Your task to perform on an android device: delete the emails in spam in the gmail app Image 0: 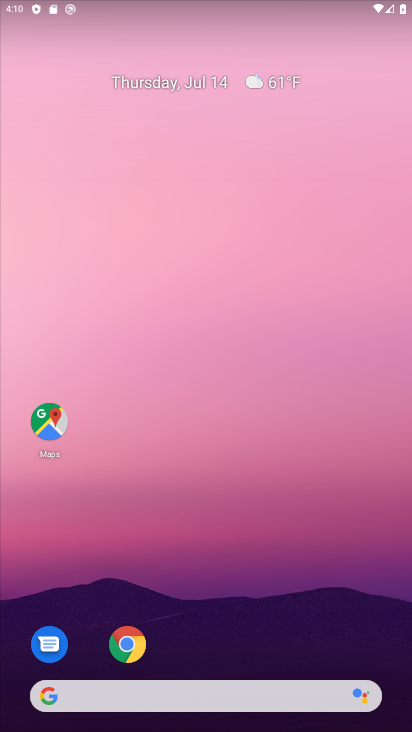
Step 0: press home button
Your task to perform on an android device: delete the emails in spam in the gmail app Image 1: 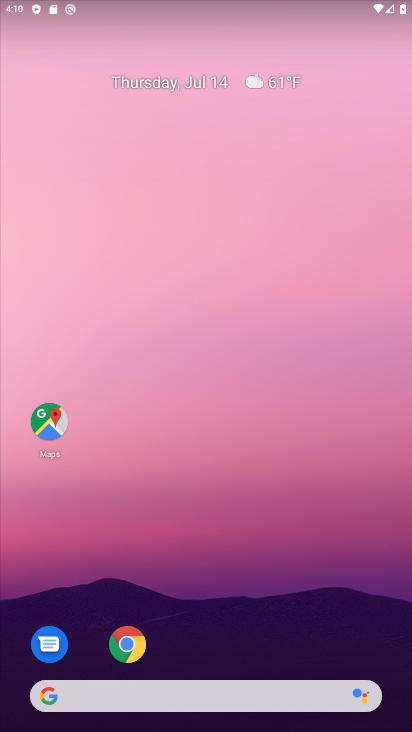
Step 1: press home button
Your task to perform on an android device: delete the emails in spam in the gmail app Image 2: 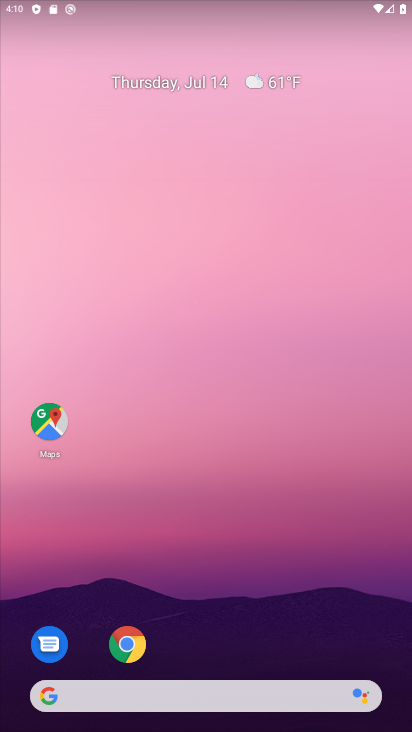
Step 2: drag from (334, 597) to (334, 104)
Your task to perform on an android device: delete the emails in spam in the gmail app Image 3: 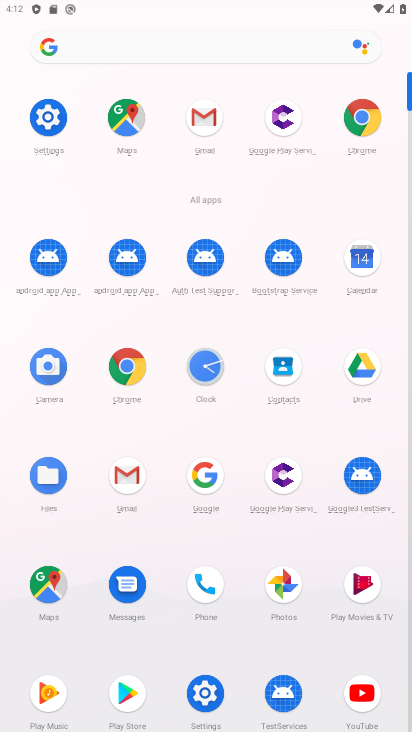
Step 3: click (180, 121)
Your task to perform on an android device: delete the emails in spam in the gmail app Image 4: 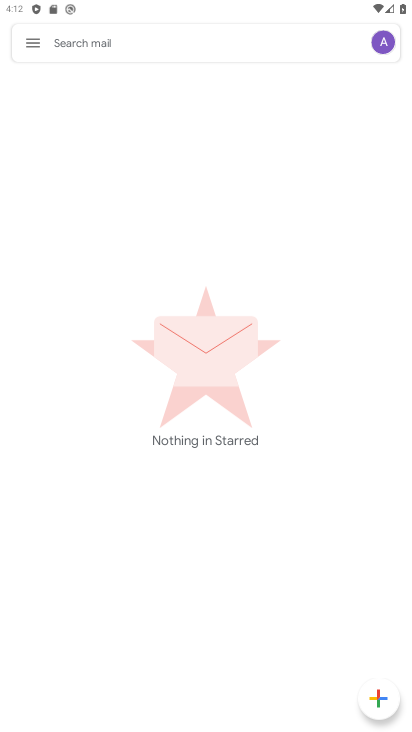
Step 4: task complete